Your task to perform on an android device: turn on improve location accuracy Image 0: 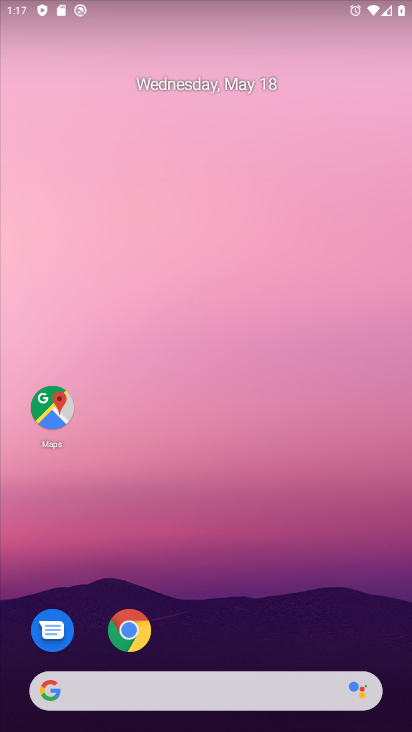
Step 0: drag from (35, 528) to (191, 183)
Your task to perform on an android device: turn on improve location accuracy Image 1: 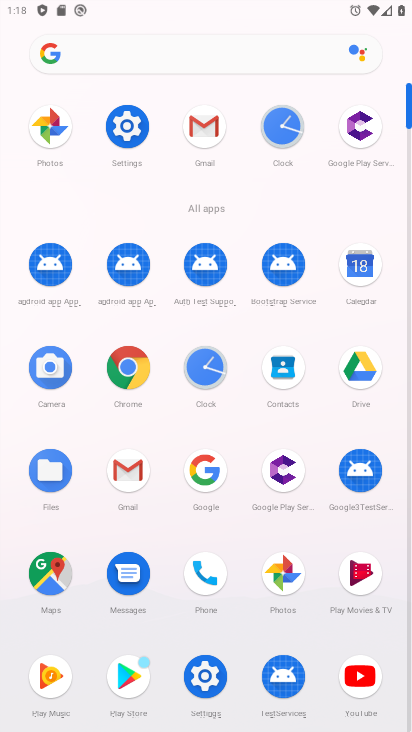
Step 1: click (136, 129)
Your task to perform on an android device: turn on improve location accuracy Image 2: 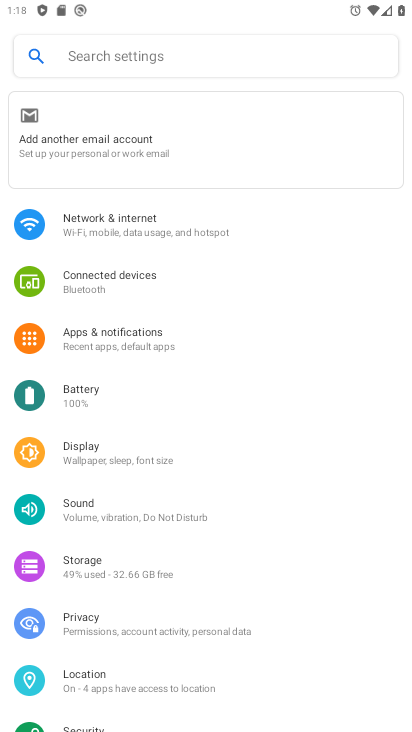
Step 2: click (118, 677)
Your task to perform on an android device: turn on improve location accuracy Image 3: 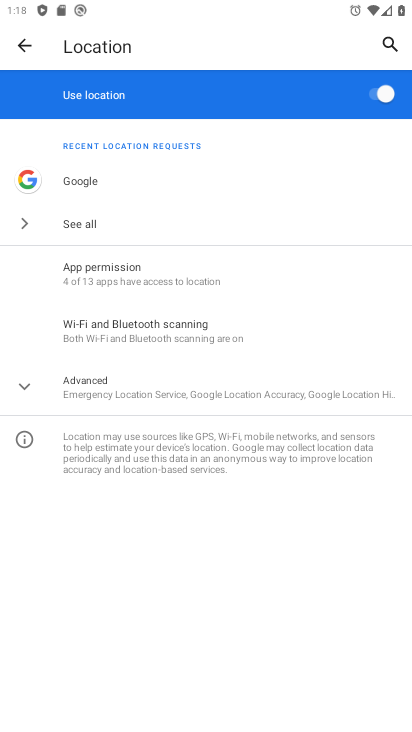
Step 3: click (166, 398)
Your task to perform on an android device: turn on improve location accuracy Image 4: 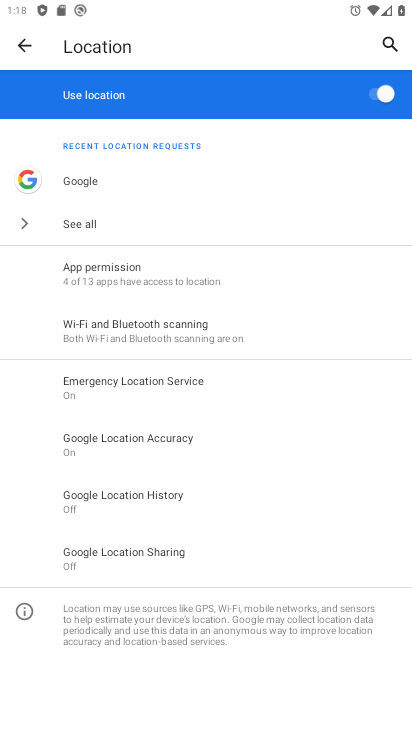
Step 4: click (158, 432)
Your task to perform on an android device: turn on improve location accuracy Image 5: 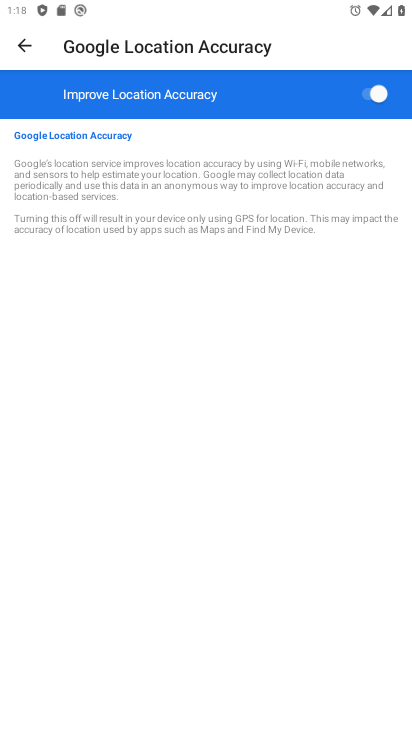
Step 5: task complete